Your task to perform on an android device: Open Google Chrome and click the shortcut for Amazon.com Image 0: 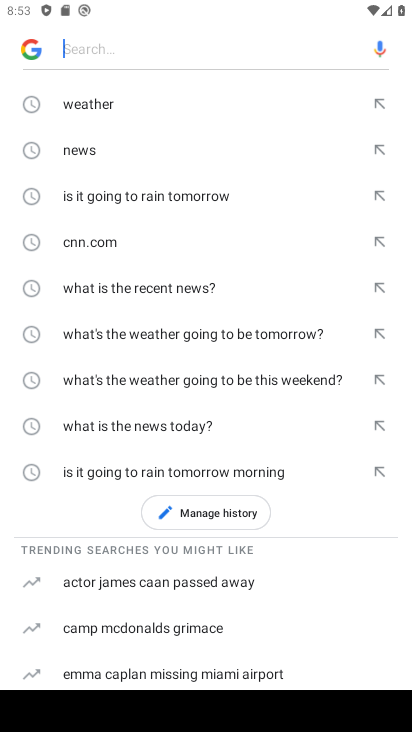
Step 0: press home button
Your task to perform on an android device: Open Google Chrome and click the shortcut for Amazon.com Image 1: 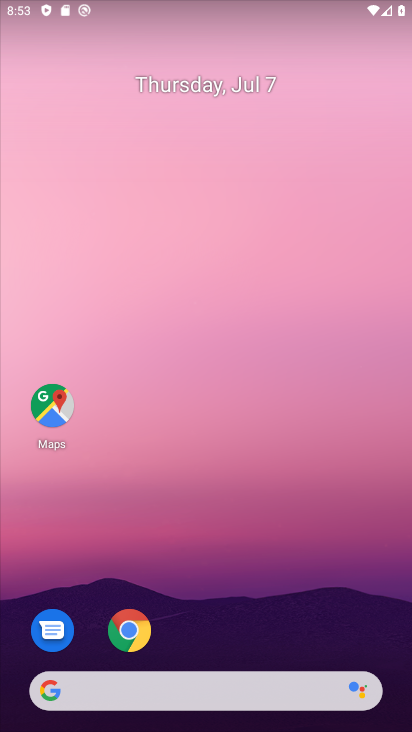
Step 1: click (127, 614)
Your task to perform on an android device: Open Google Chrome and click the shortcut for Amazon.com Image 2: 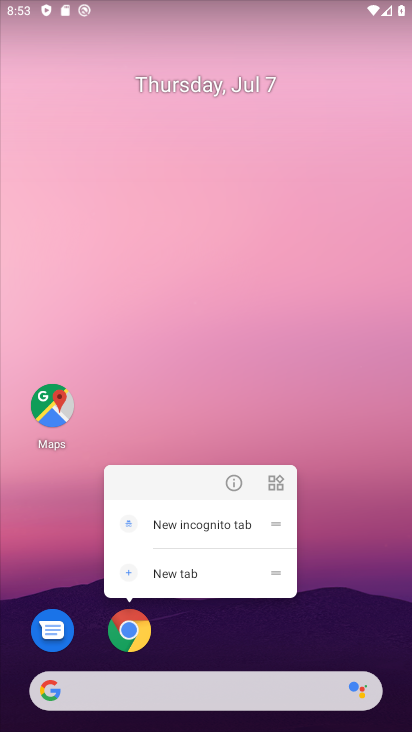
Step 2: click (123, 615)
Your task to perform on an android device: Open Google Chrome and click the shortcut for Amazon.com Image 3: 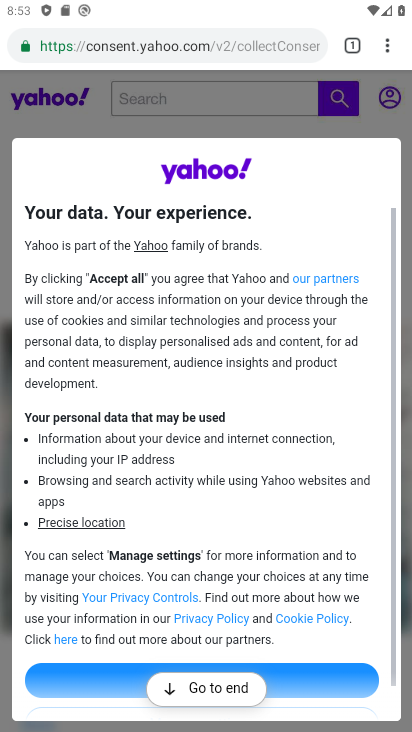
Step 3: click (347, 32)
Your task to perform on an android device: Open Google Chrome and click the shortcut for Amazon.com Image 4: 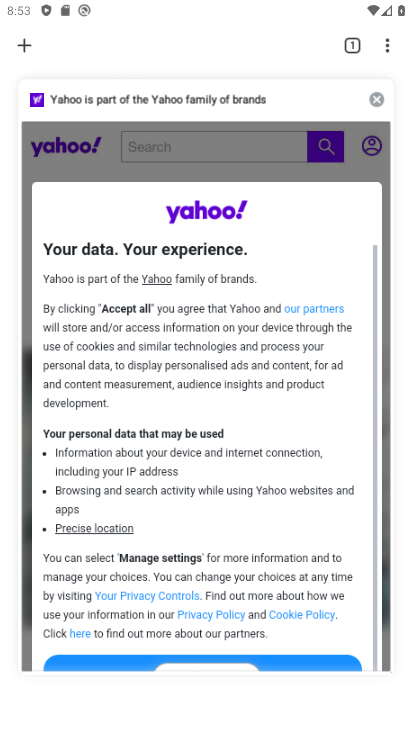
Step 4: click (28, 51)
Your task to perform on an android device: Open Google Chrome and click the shortcut for Amazon.com Image 5: 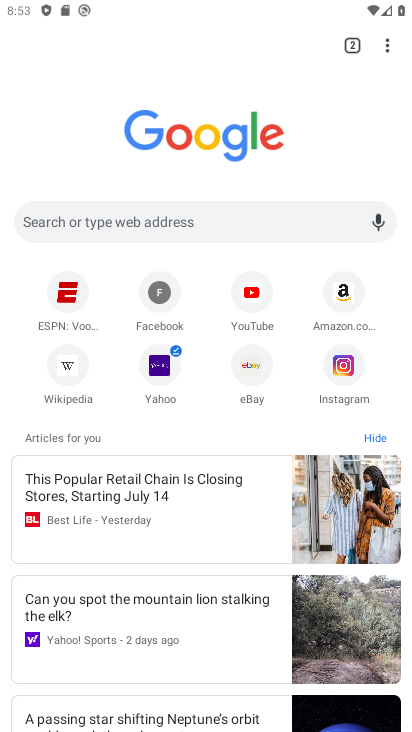
Step 5: click (336, 307)
Your task to perform on an android device: Open Google Chrome and click the shortcut for Amazon.com Image 6: 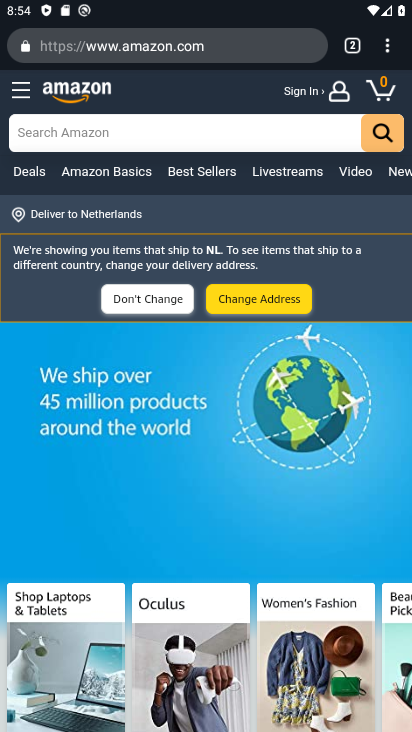
Step 6: task complete